Your task to perform on an android device: Open the map Image 0: 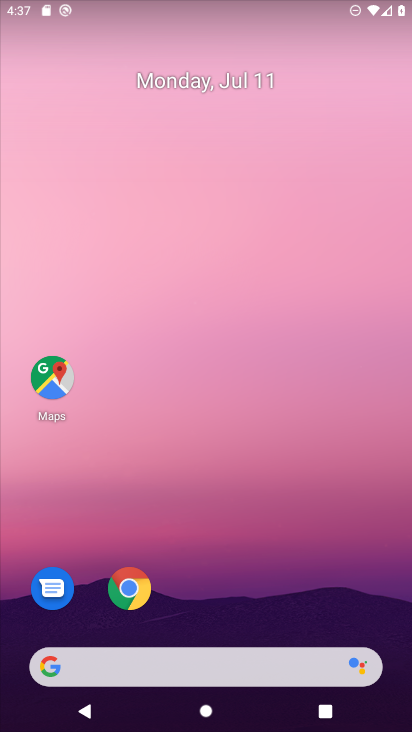
Step 0: drag from (236, 631) to (293, 147)
Your task to perform on an android device: Open the map Image 1: 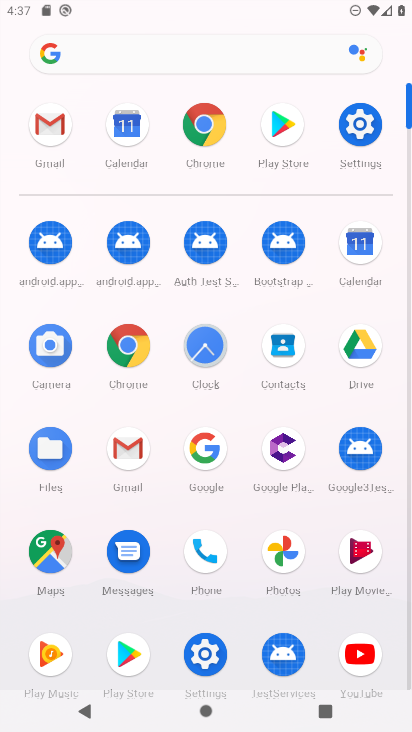
Step 1: click (47, 547)
Your task to perform on an android device: Open the map Image 2: 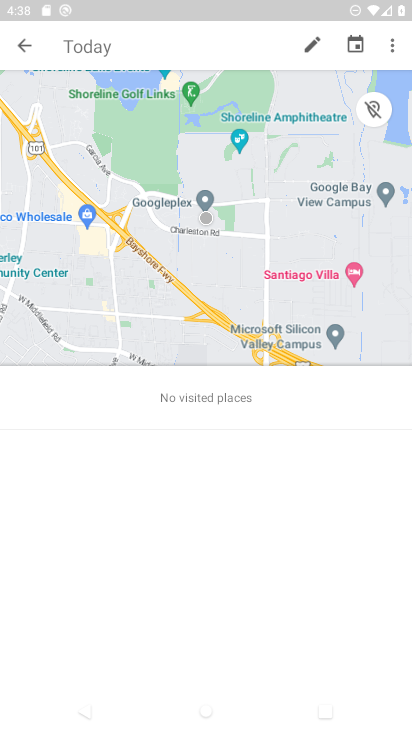
Step 2: task complete